Your task to perform on an android device: change text size in settings app Image 0: 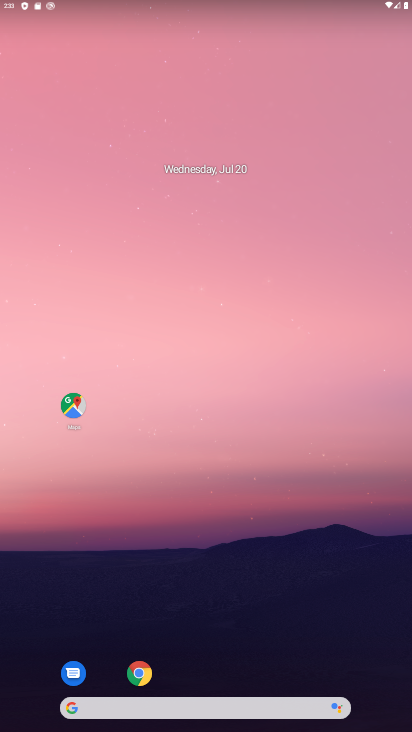
Step 0: drag from (322, 589) to (298, 136)
Your task to perform on an android device: change text size in settings app Image 1: 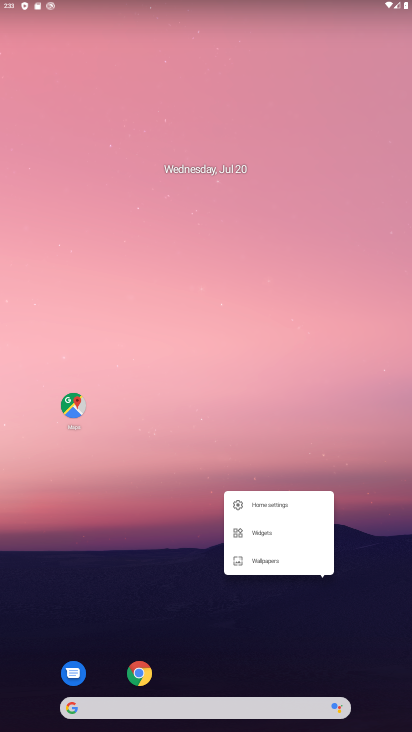
Step 1: drag from (241, 700) to (180, 12)
Your task to perform on an android device: change text size in settings app Image 2: 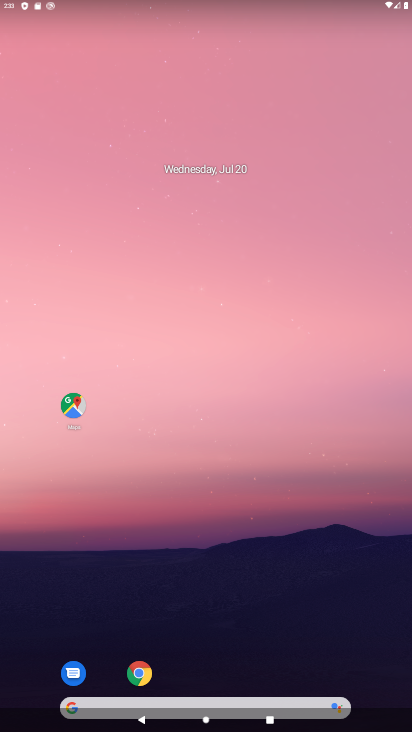
Step 2: drag from (306, 640) to (228, 33)
Your task to perform on an android device: change text size in settings app Image 3: 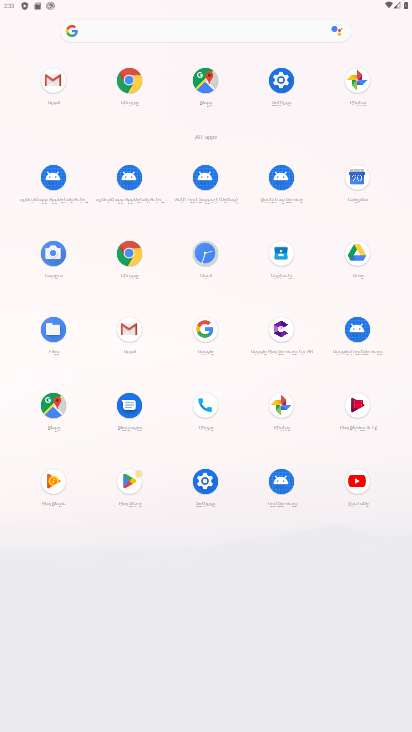
Step 3: click (281, 85)
Your task to perform on an android device: change text size in settings app Image 4: 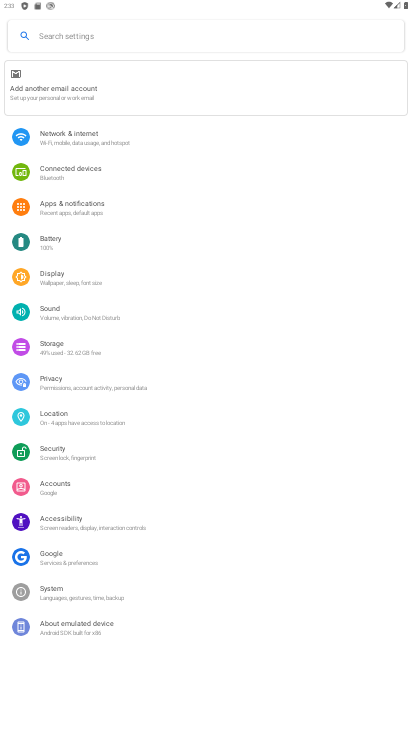
Step 4: click (48, 242)
Your task to perform on an android device: change text size in settings app Image 5: 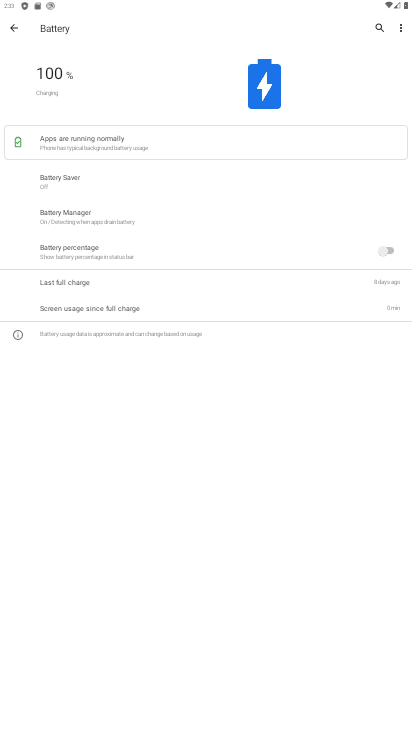
Step 5: click (14, 28)
Your task to perform on an android device: change text size in settings app Image 6: 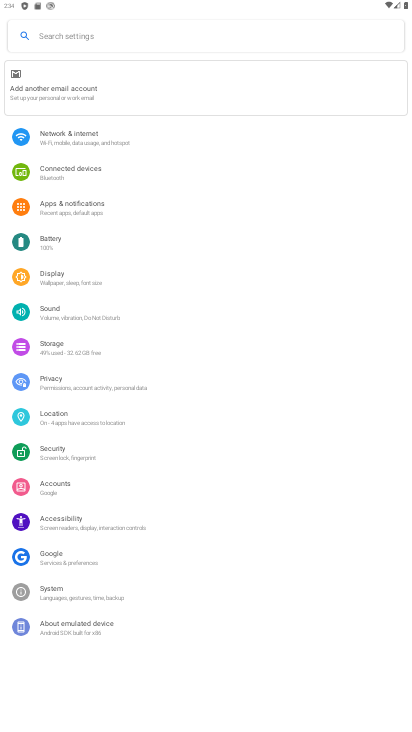
Step 6: click (65, 275)
Your task to perform on an android device: change text size in settings app Image 7: 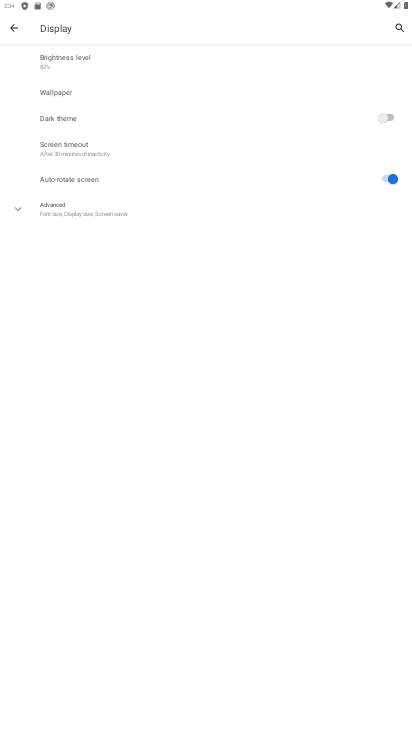
Step 7: click (114, 205)
Your task to perform on an android device: change text size in settings app Image 8: 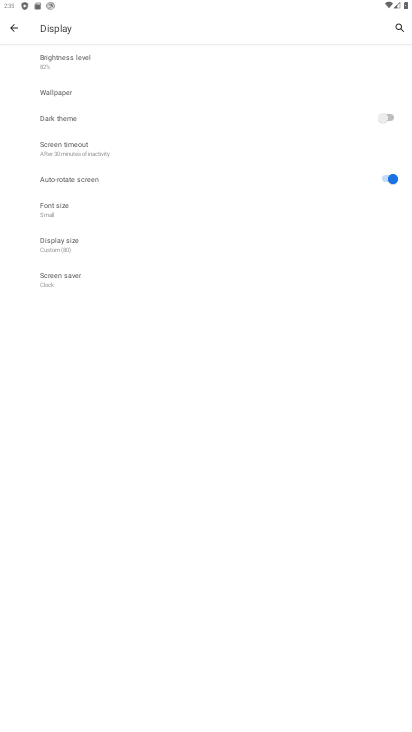
Step 8: click (73, 212)
Your task to perform on an android device: change text size in settings app Image 9: 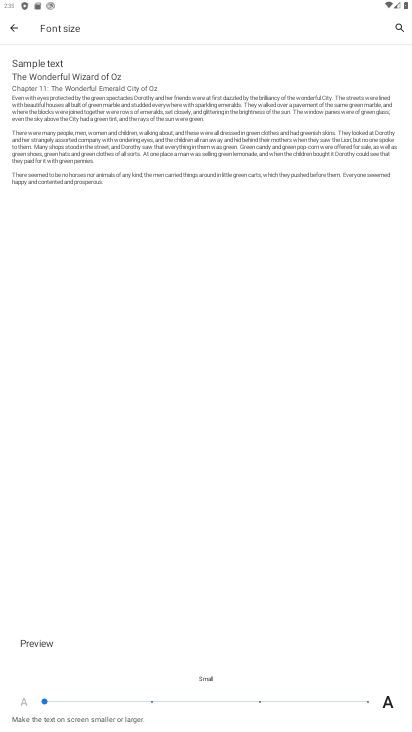
Step 9: task complete